Your task to perform on an android device: Open eBay Image 0: 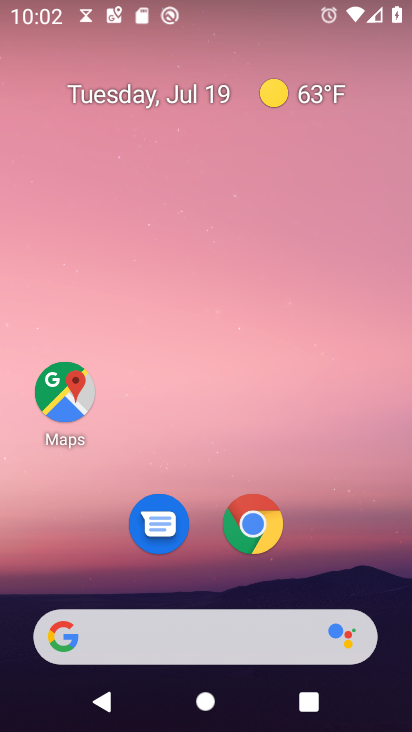
Step 0: press home button
Your task to perform on an android device: Open eBay Image 1: 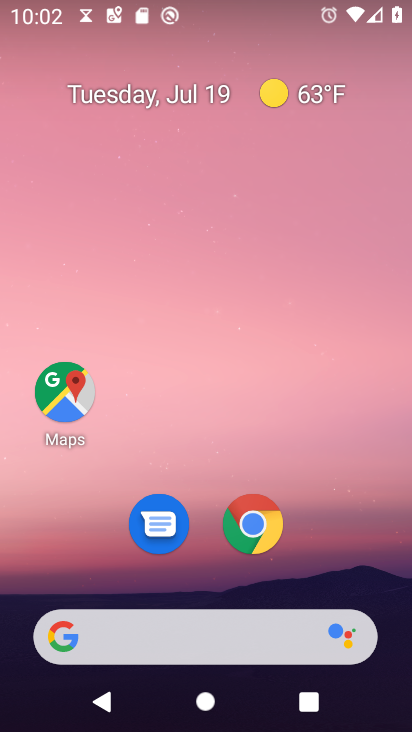
Step 1: click (254, 527)
Your task to perform on an android device: Open eBay Image 2: 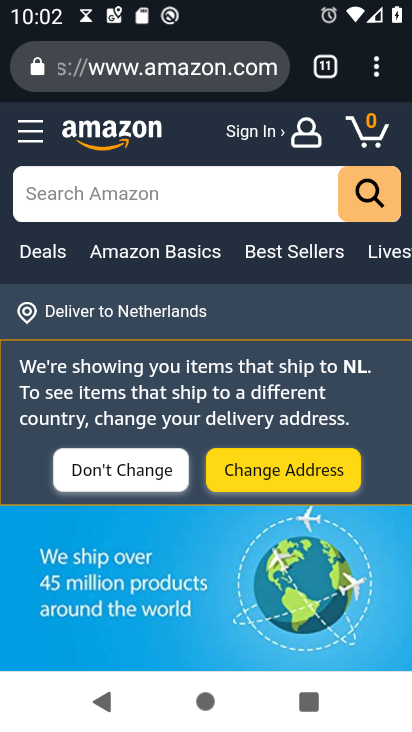
Step 2: drag from (383, 67) to (223, 129)
Your task to perform on an android device: Open eBay Image 3: 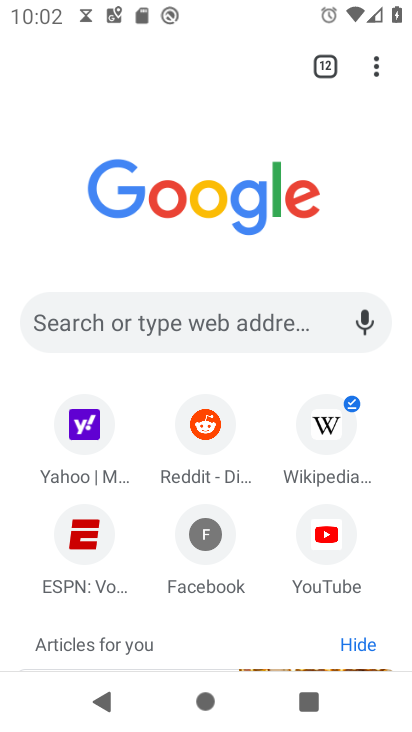
Step 3: click (116, 324)
Your task to perform on an android device: Open eBay Image 4: 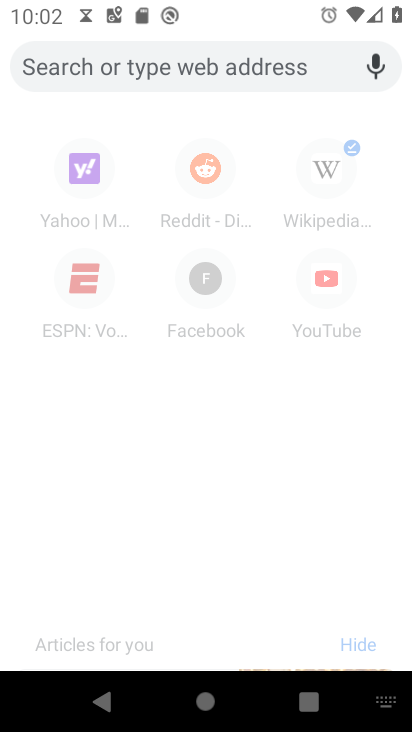
Step 4: type "ebay"
Your task to perform on an android device: Open eBay Image 5: 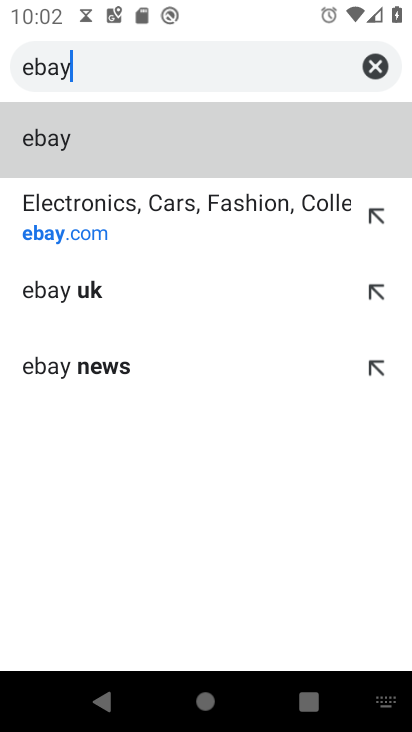
Step 5: click (214, 210)
Your task to perform on an android device: Open eBay Image 6: 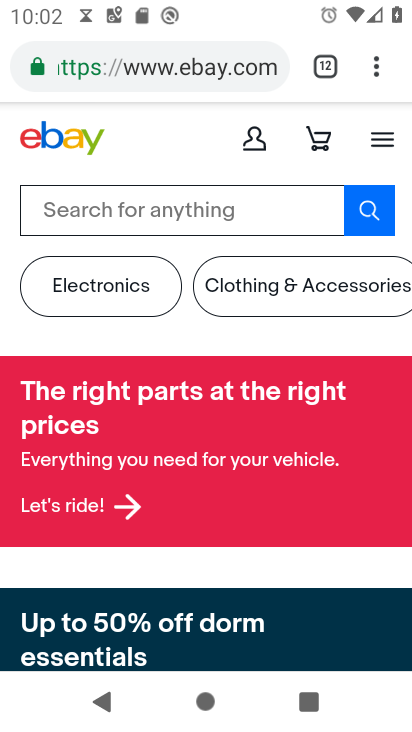
Step 6: drag from (298, 600) to (330, 207)
Your task to perform on an android device: Open eBay Image 7: 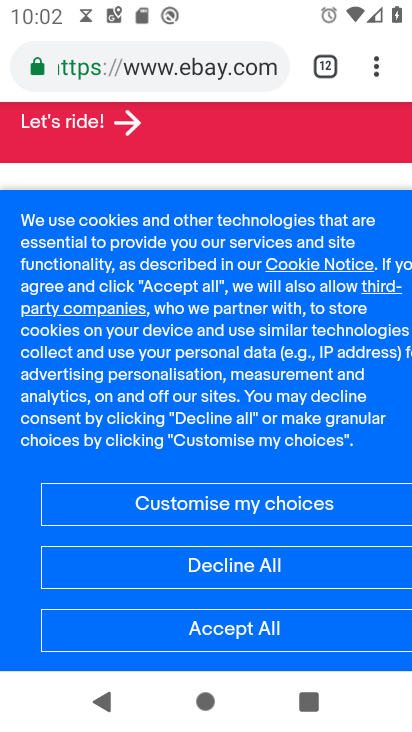
Step 7: click (253, 635)
Your task to perform on an android device: Open eBay Image 8: 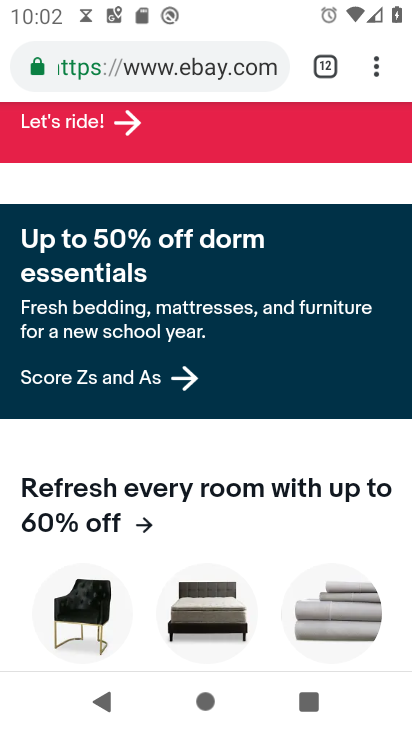
Step 8: task complete